Your task to perform on an android device: delete browsing data in the chrome app Image 0: 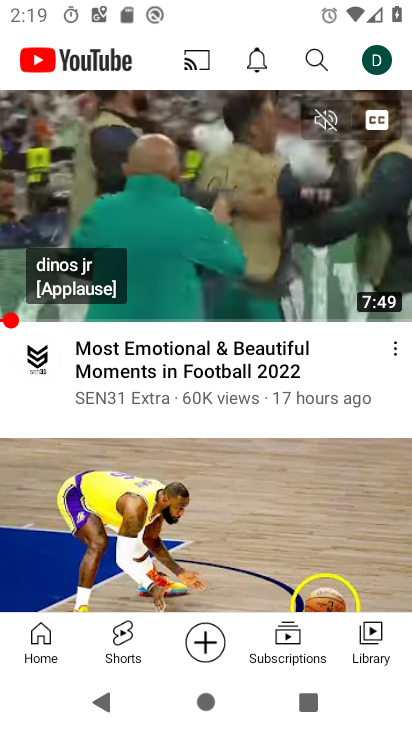
Step 0: press home button
Your task to perform on an android device: delete browsing data in the chrome app Image 1: 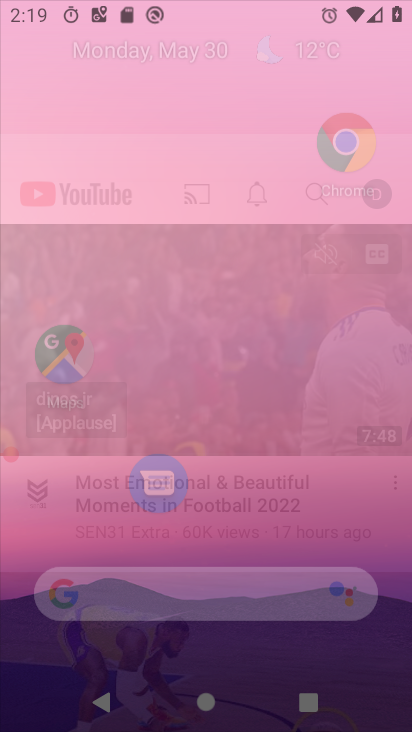
Step 1: drag from (178, 557) to (264, 104)
Your task to perform on an android device: delete browsing data in the chrome app Image 2: 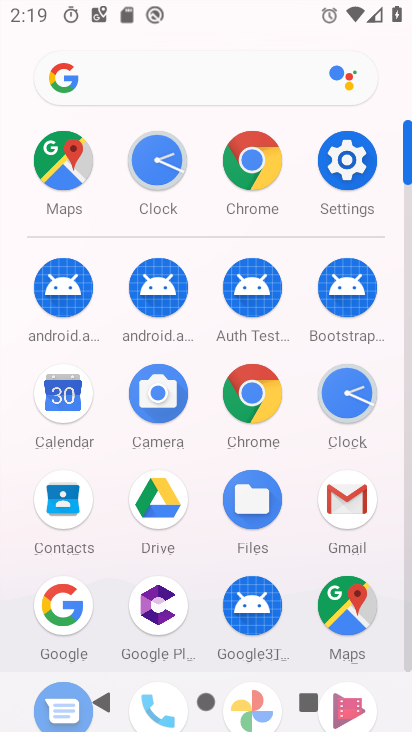
Step 2: click (244, 386)
Your task to perform on an android device: delete browsing data in the chrome app Image 3: 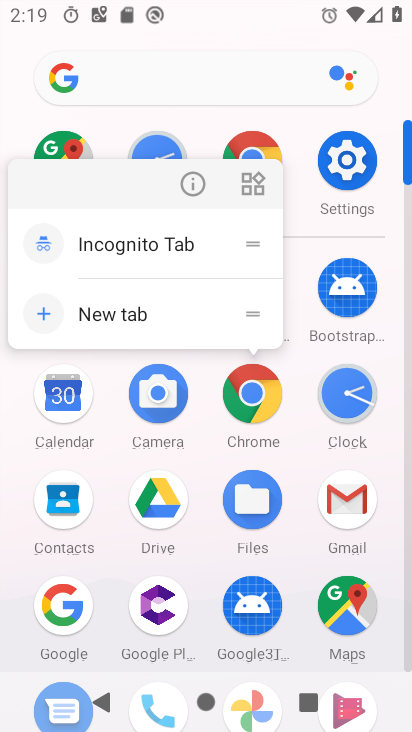
Step 3: click (189, 183)
Your task to perform on an android device: delete browsing data in the chrome app Image 4: 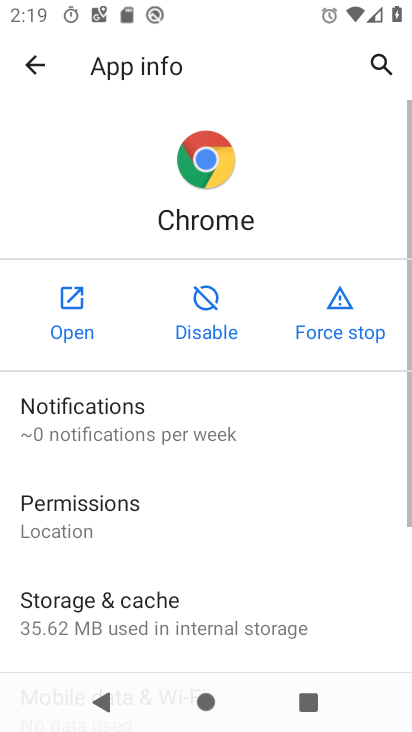
Step 4: click (54, 313)
Your task to perform on an android device: delete browsing data in the chrome app Image 5: 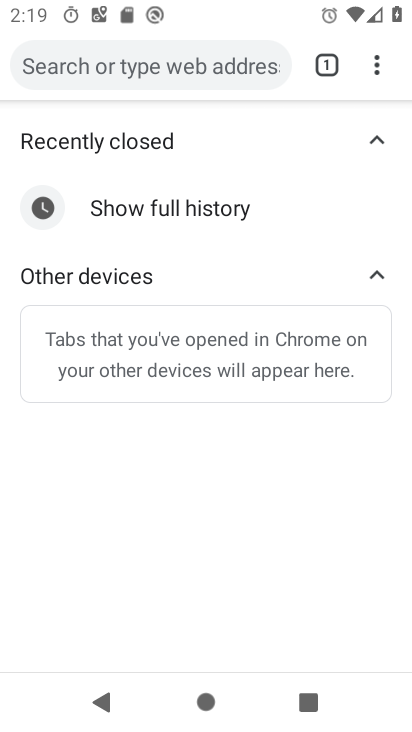
Step 5: drag from (379, 71) to (198, 361)
Your task to perform on an android device: delete browsing data in the chrome app Image 6: 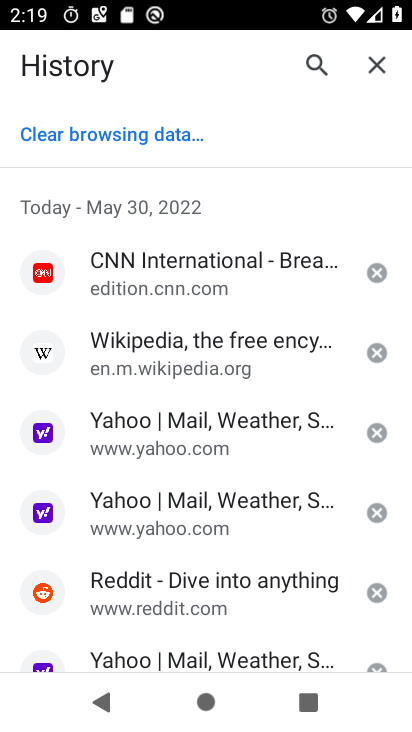
Step 6: drag from (162, 516) to (205, 261)
Your task to perform on an android device: delete browsing data in the chrome app Image 7: 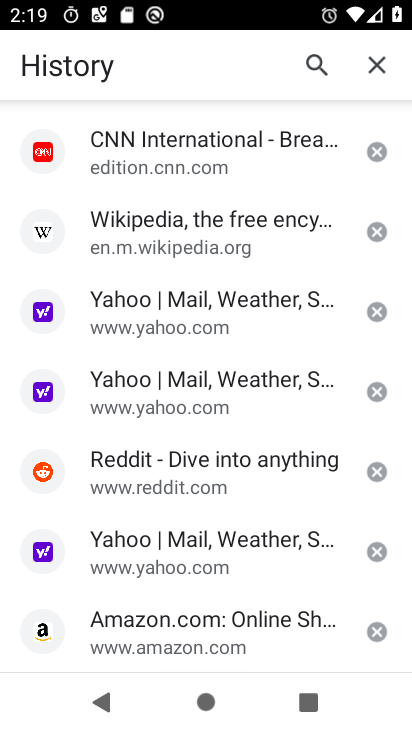
Step 7: drag from (189, 221) to (172, 730)
Your task to perform on an android device: delete browsing data in the chrome app Image 8: 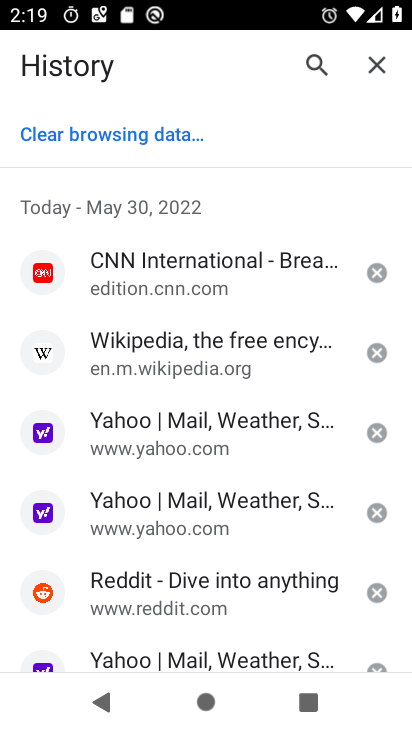
Step 8: click (51, 132)
Your task to perform on an android device: delete browsing data in the chrome app Image 9: 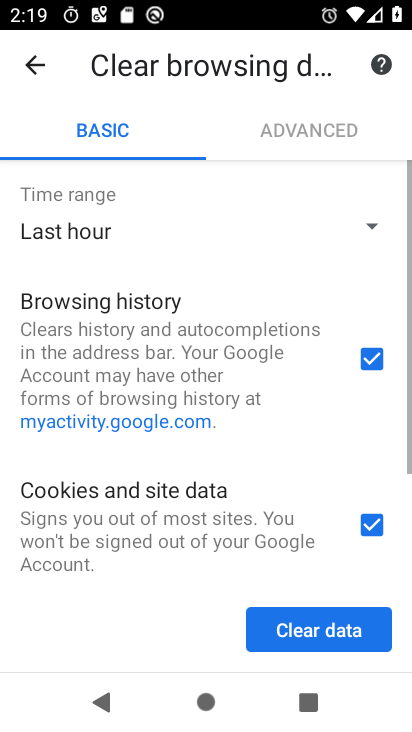
Step 9: drag from (268, 504) to (270, 228)
Your task to perform on an android device: delete browsing data in the chrome app Image 10: 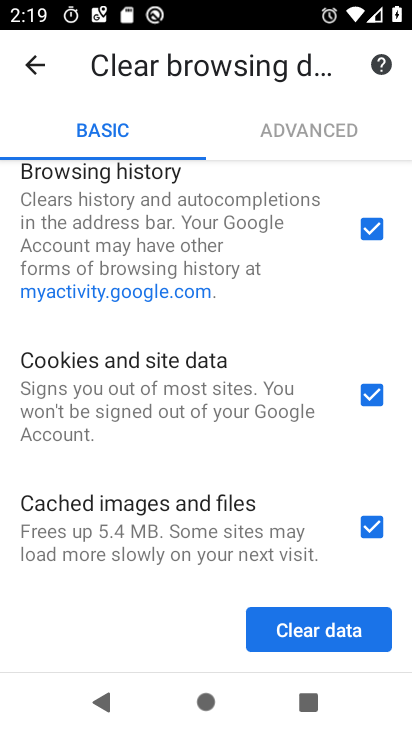
Step 10: drag from (245, 226) to (391, 725)
Your task to perform on an android device: delete browsing data in the chrome app Image 11: 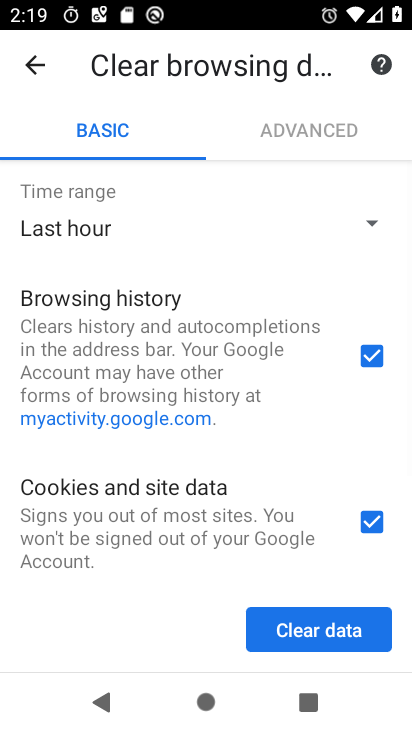
Step 11: click (373, 220)
Your task to perform on an android device: delete browsing data in the chrome app Image 12: 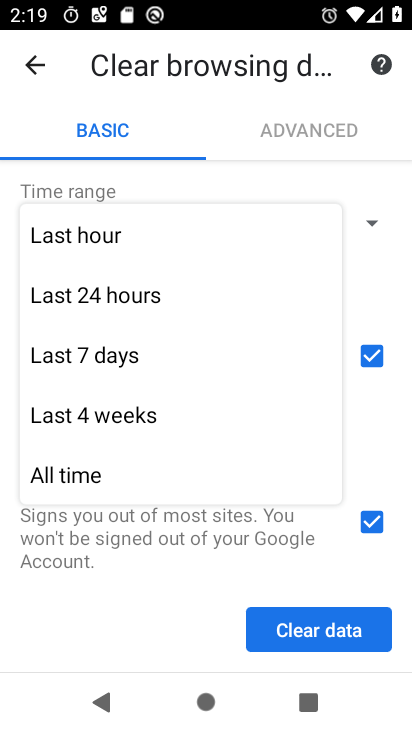
Step 12: click (93, 457)
Your task to perform on an android device: delete browsing data in the chrome app Image 13: 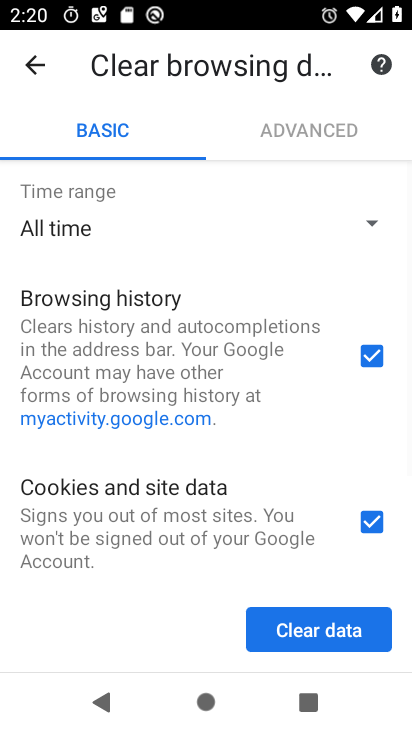
Step 13: click (315, 628)
Your task to perform on an android device: delete browsing data in the chrome app Image 14: 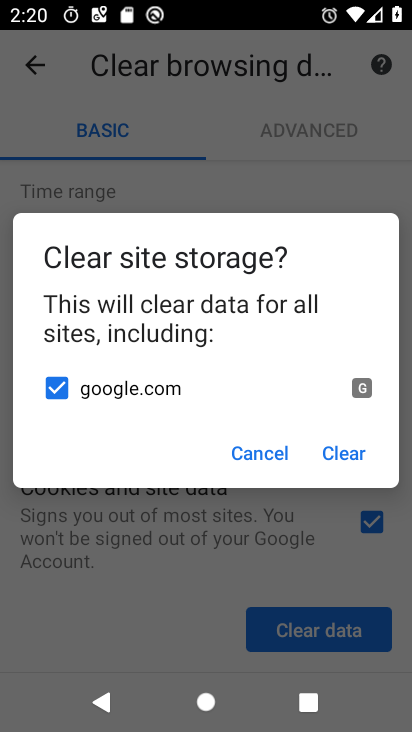
Step 14: click (360, 453)
Your task to perform on an android device: delete browsing data in the chrome app Image 15: 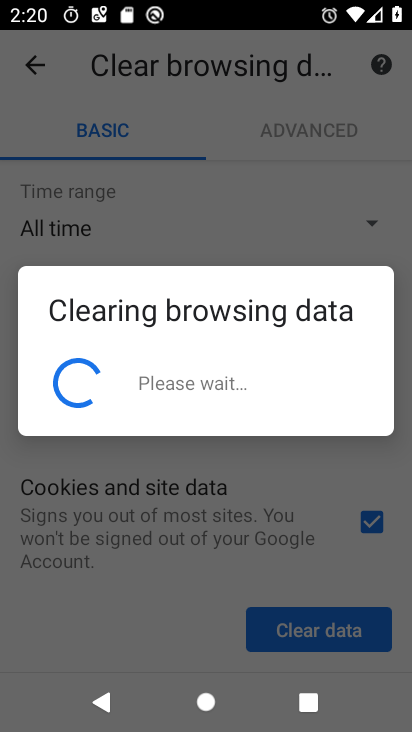
Step 15: task complete